Your task to perform on an android device: add a contact Image 0: 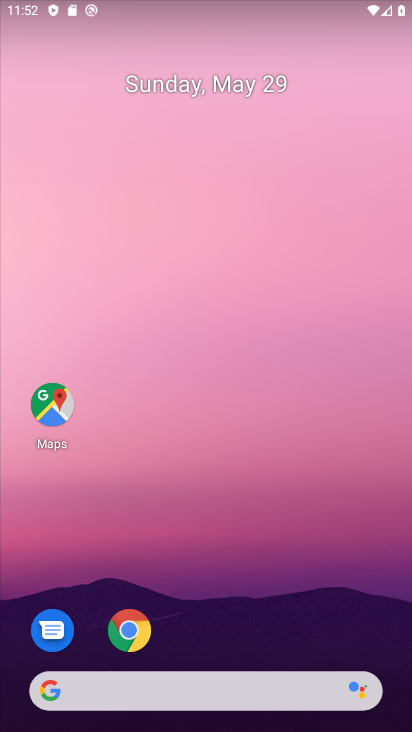
Step 0: drag from (139, 711) to (154, 56)
Your task to perform on an android device: add a contact Image 1: 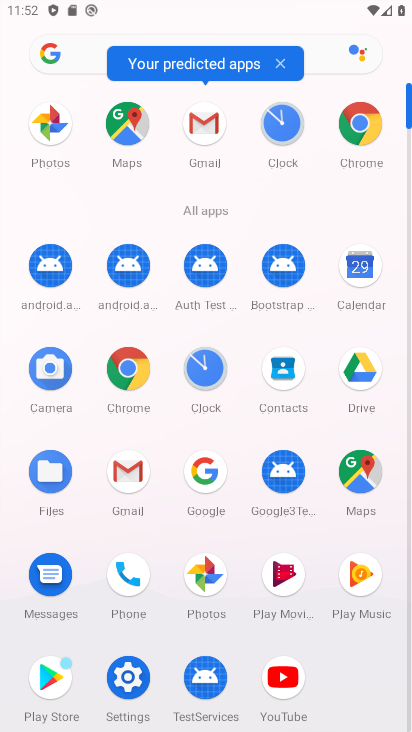
Step 1: click (281, 372)
Your task to perform on an android device: add a contact Image 2: 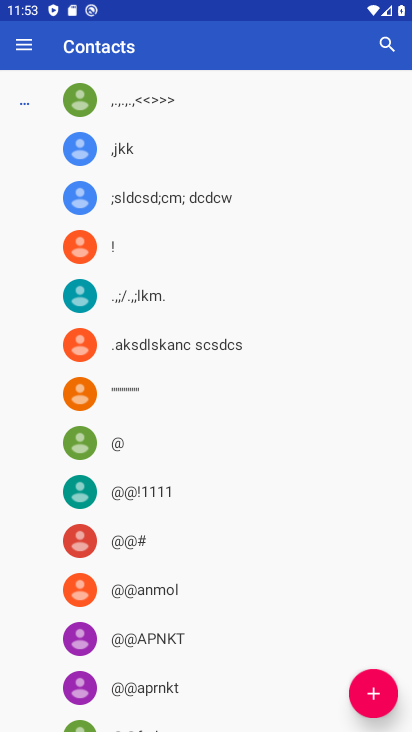
Step 2: click (362, 694)
Your task to perform on an android device: add a contact Image 3: 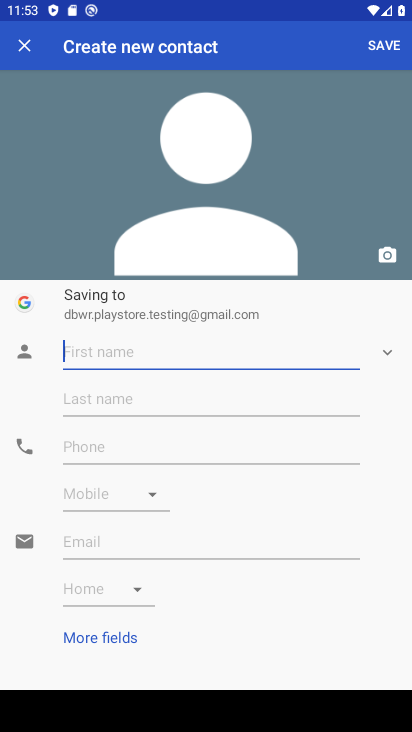
Step 3: type "ahsgj"
Your task to perform on an android device: add a contact Image 4: 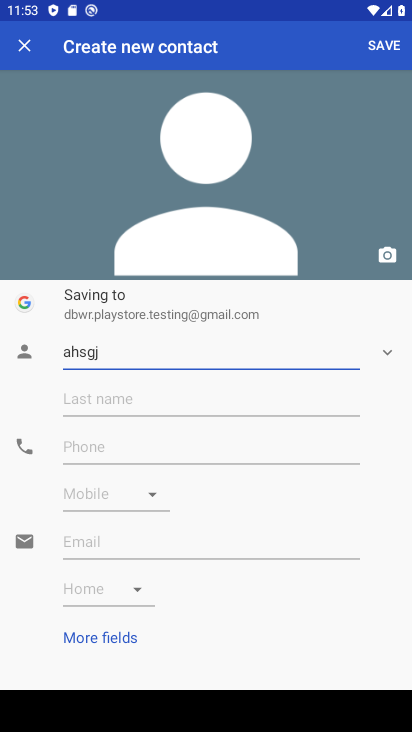
Step 4: click (132, 448)
Your task to perform on an android device: add a contact Image 5: 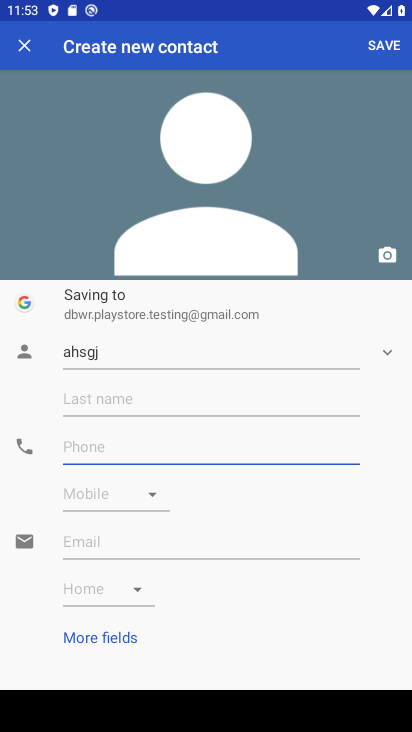
Step 5: type "9871263548"
Your task to perform on an android device: add a contact Image 6: 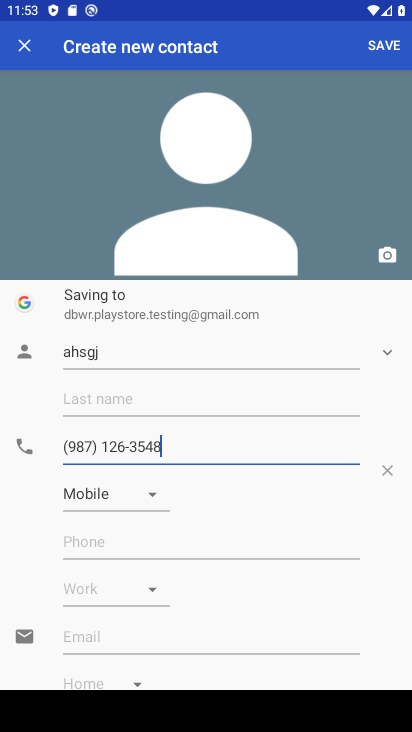
Step 6: click (393, 41)
Your task to perform on an android device: add a contact Image 7: 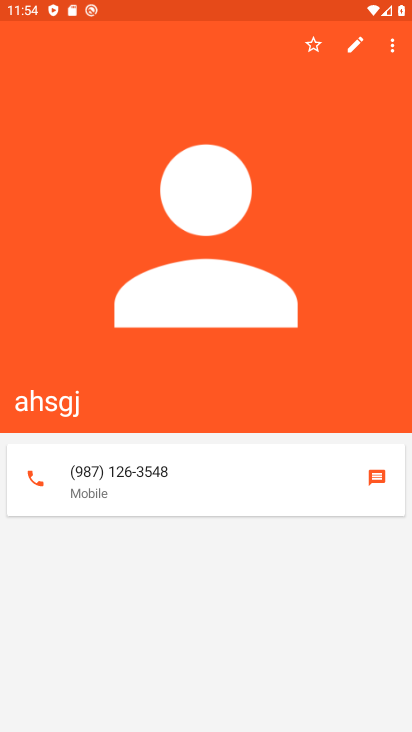
Step 7: task complete